Your task to perform on an android device: turn off wifi Image 0: 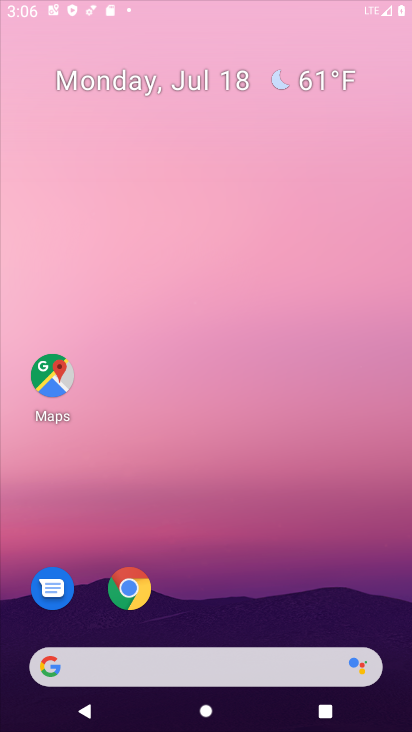
Step 0: drag from (273, 622) to (266, 235)
Your task to perform on an android device: turn off wifi Image 1: 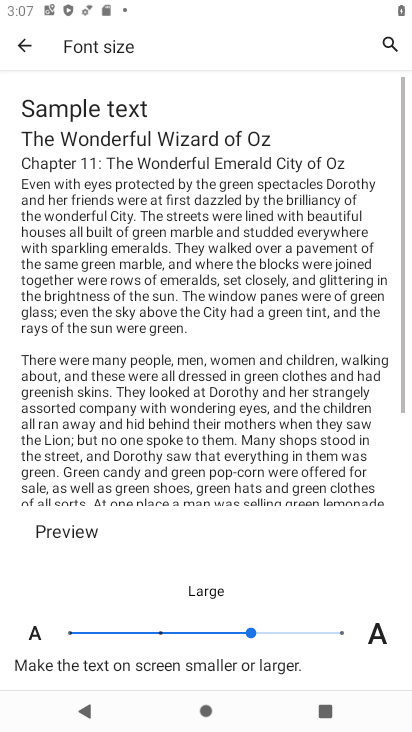
Step 1: press home button
Your task to perform on an android device: turn off wifi Image 2: 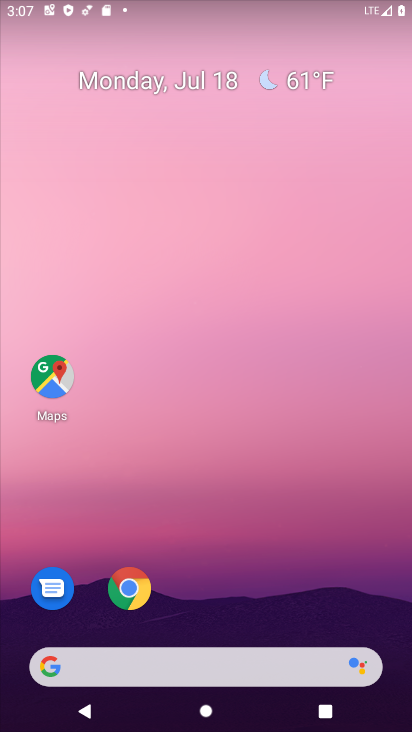
Step 2: drag from (257, 631) to (246, 100)
Your task to perform on an android device: turn off wifi Image 3: 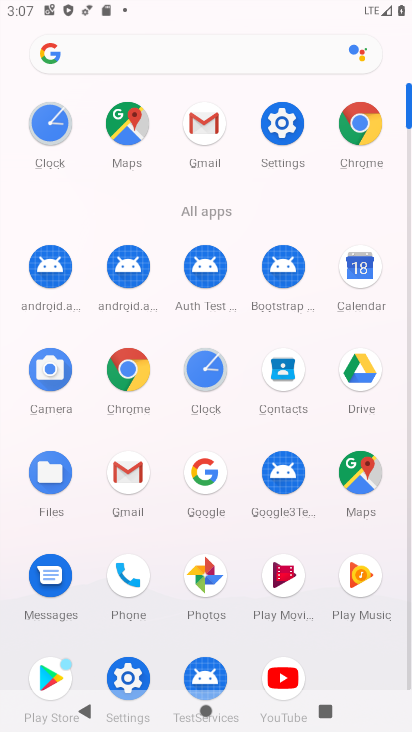
Step 3: click (127, 680)
Your task to perform on an android device: turn off wifi Image 4: 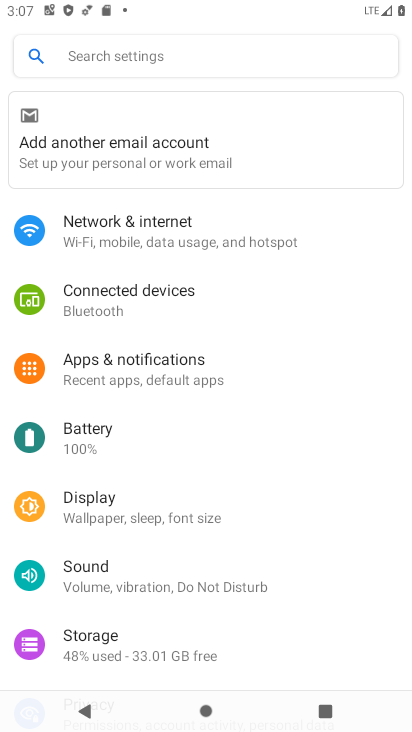
Step 4: click (193, 241)
Your task to perform on an android device: turn off wifi Image 5: 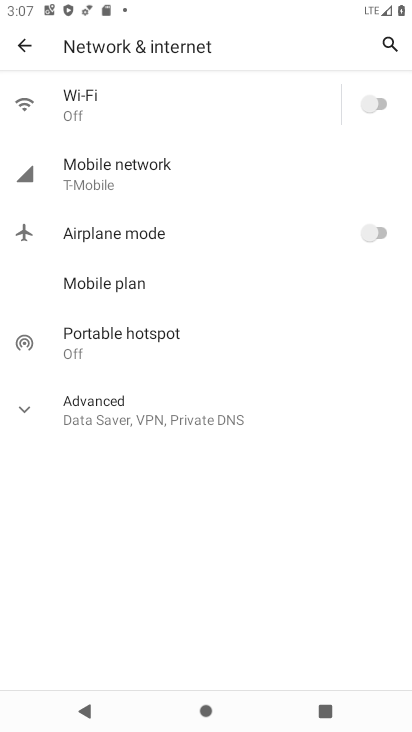
Step 5: click (378, 96)
Your task to perform on an android device: turn off wifi Image 6: 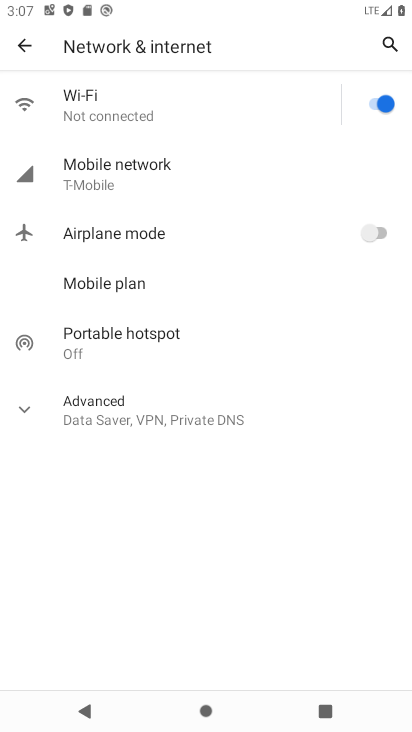
Step 6: task complete